Your task to perform on an android device: change keyboard looks Image 0: 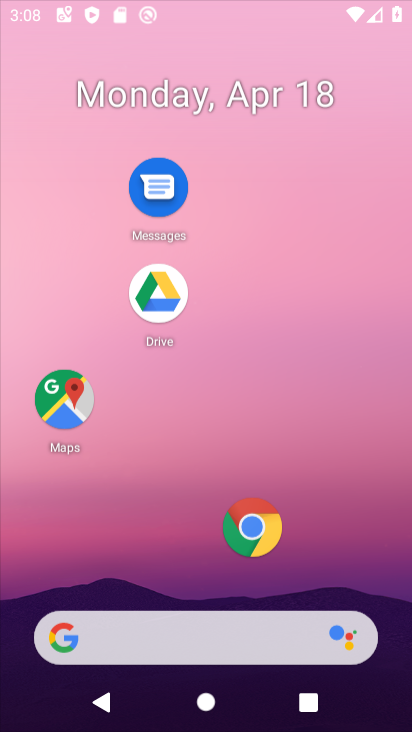
Step 0: click (232, 135)
Your task to perform on an android device: change keyboard looks Image 1: 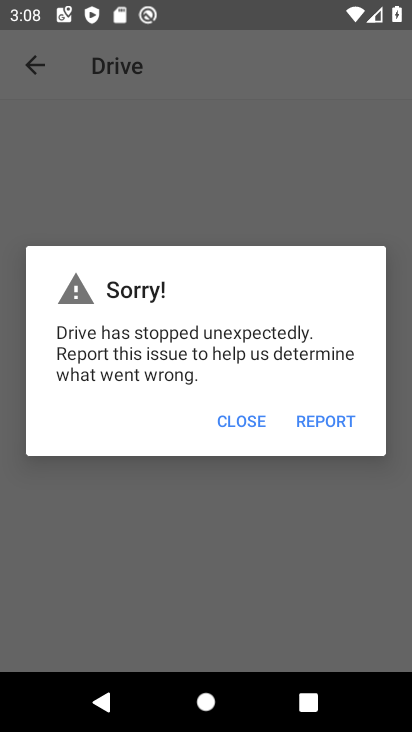
Step 1: press back button
Your task to perform on an android device: change keyboard looks Image 2: 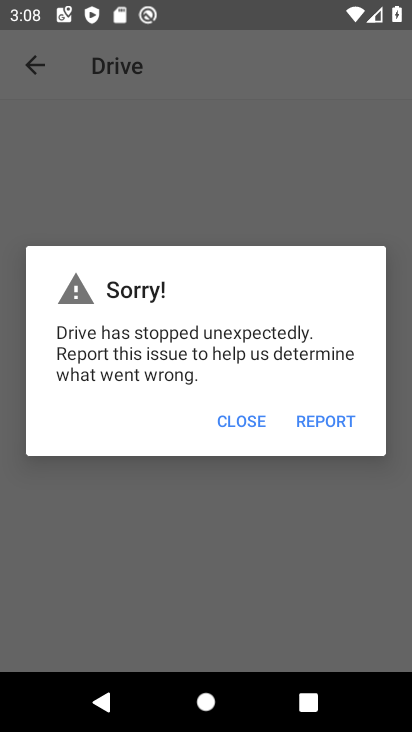
Step 2: press home button
Your task to perform on an android device: change keyboard looks Image 3: 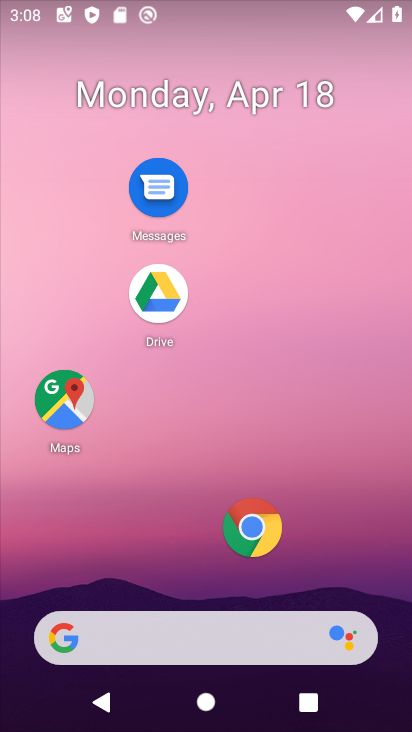
Step 3: drag from (161, 479) to (235, 130)
Your task to perform on an android device: change keyboard looks Image 4: 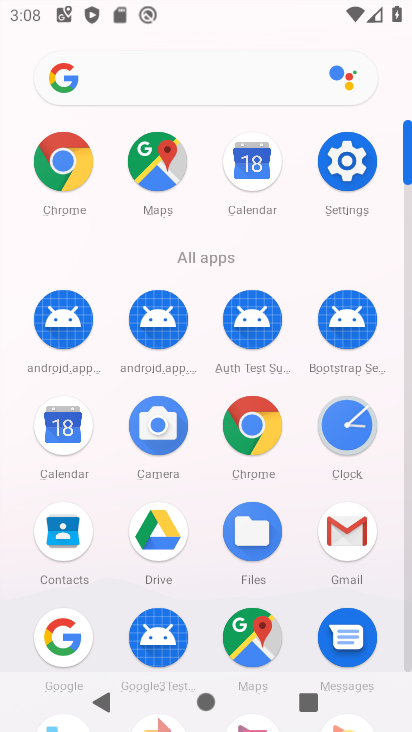
Step 4: click (348, 168)
Your task to perform on an android device: change keyboard looks Image 5: 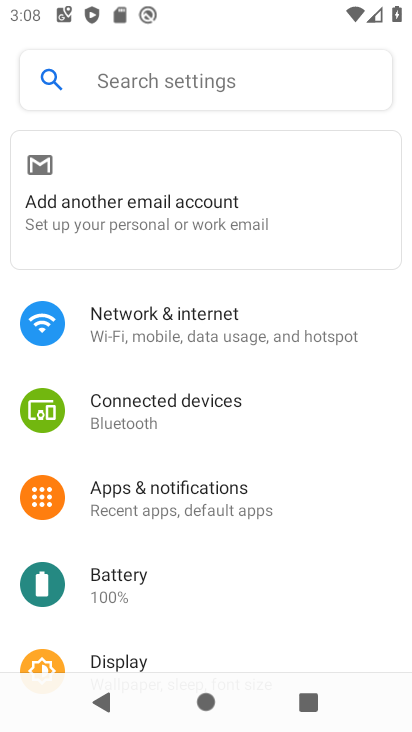
Step 5: drag from (164, 432) to (189, 313)
Your task to perform on an android device: change keyboard looks Image 6: 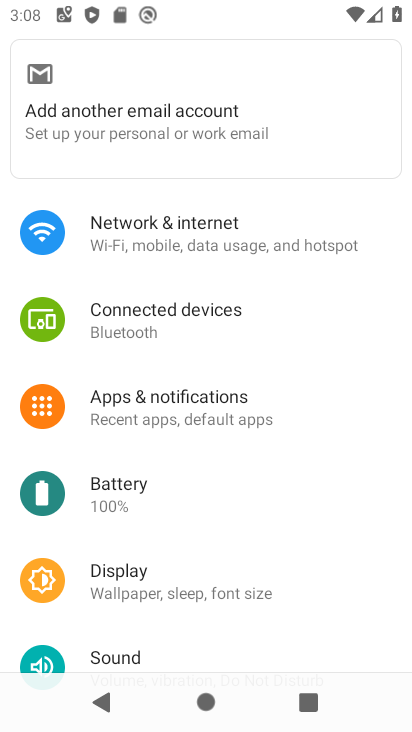
Step 6: drag from (200, 448) to (205, 359)
Your task to perform on an android device: change keyboard looks Image 7: 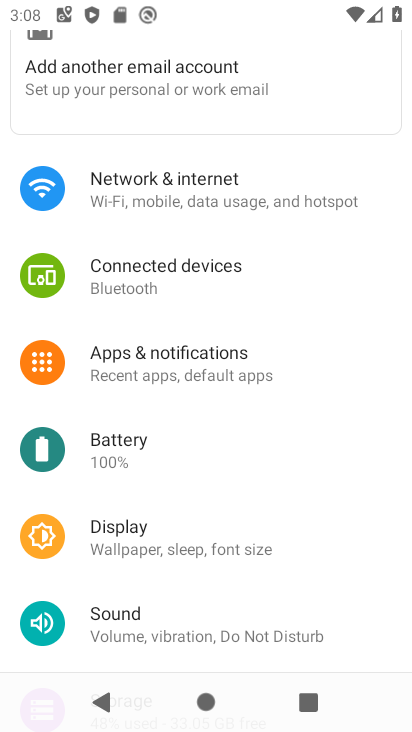
Step 7: drag from (180, 497) to (205, 384)
Your task to perform on an android device: change keyboard looks Image 8: 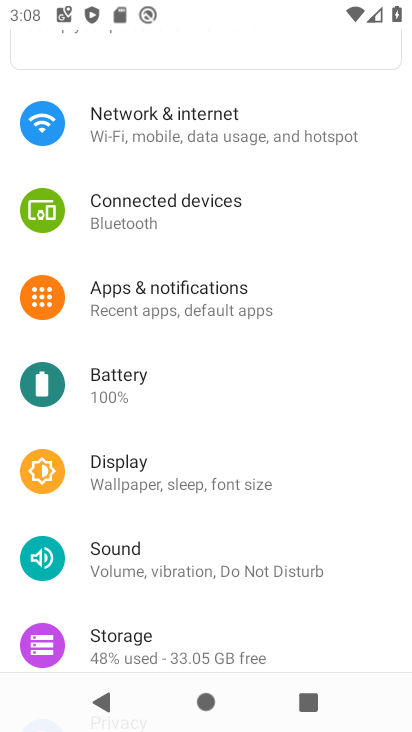
Step 8: drag from (187, 544) to (213, 398)
Your task to perform on an android device: change keyboard looks Image 9: 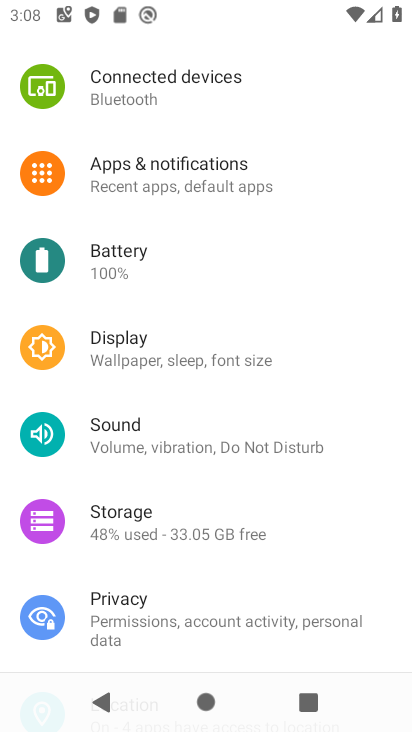
Step 9: drag from (165, 500) to (199, 374)
Your task to perform on an android device: change keyboard looks Image 10: 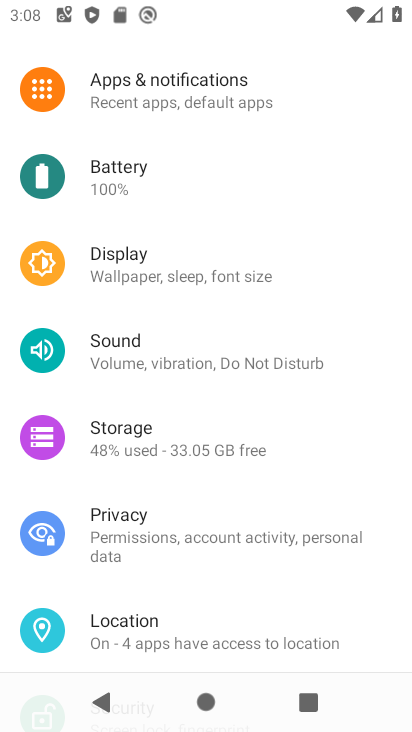
Step 10: drag from (165, 515) to (192, 407)
Your task to perform on an android device: change keyboard looks Image 11: 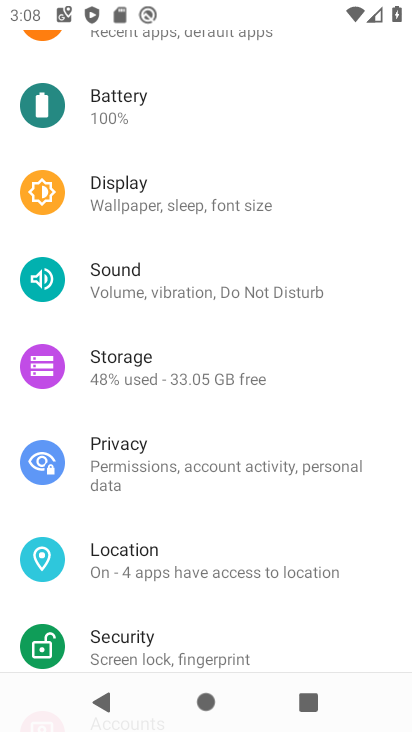
Step 11: drag from (175, 500) to (195, 412)
Your task to perform on an android device: change keyboard looks Image 12: 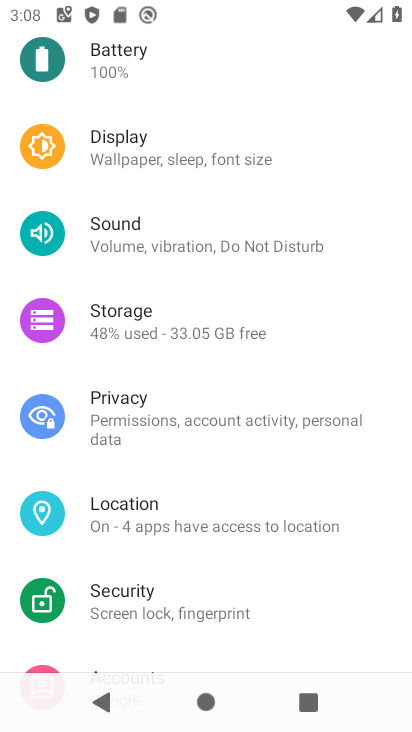
Step 12: drag from (191, 491) to (204, 414)
Your task to perform on an android device: change keyboard looks Image 13: 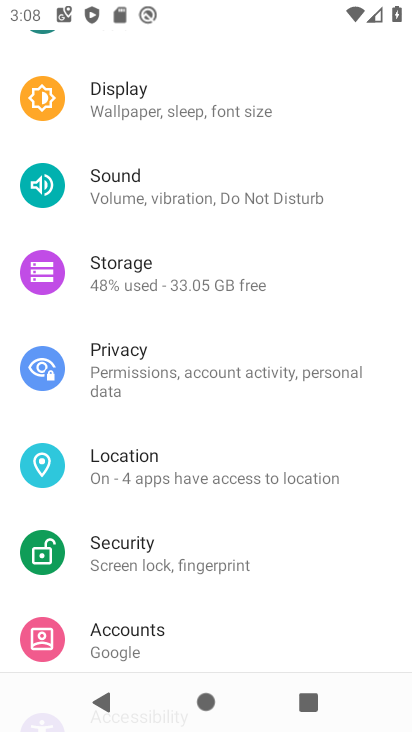
Step 13: drag from (179, 513) to (212, 412)
Your task to perform on an android device: change keyboard looks Image 14: 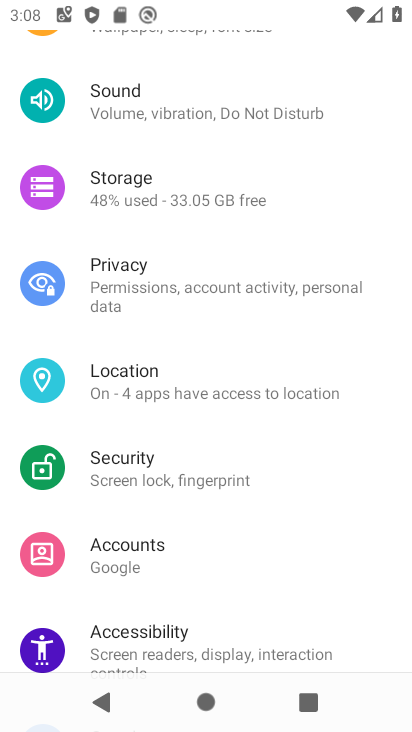
Step 14: drag from (181, 544) to (201, 435)
Your task to perform on an android device: change keyboard looks Image 15: 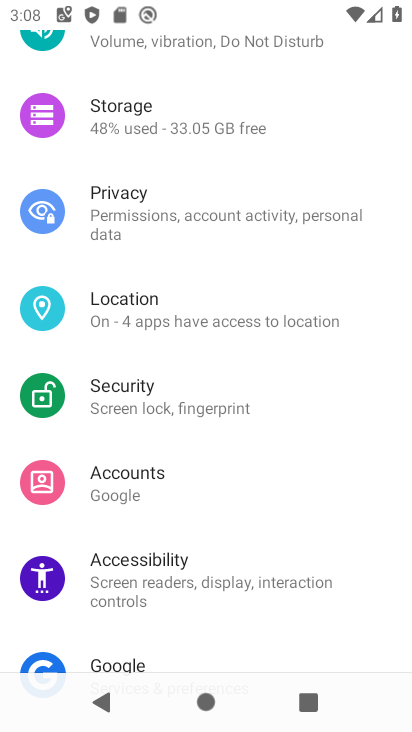
Step 15: drag from (164, 528) to (189, 404)
Your task to perform on an android device: change keyboard looks Image 16: 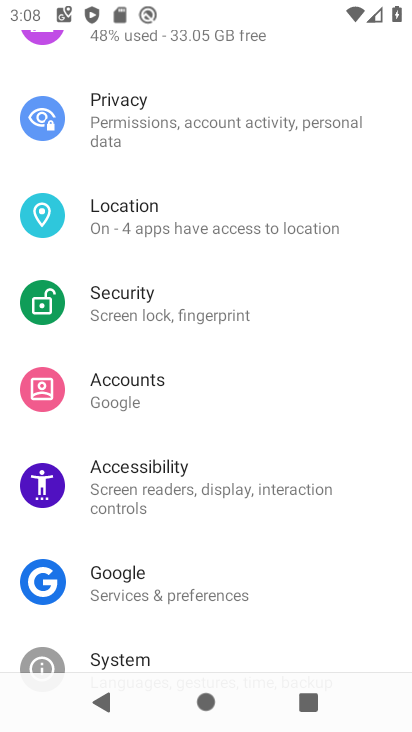
Step 16: drag from (159, 534) to (202, 430)
Your task to perform on an android device: change keyboard looks Image 17: 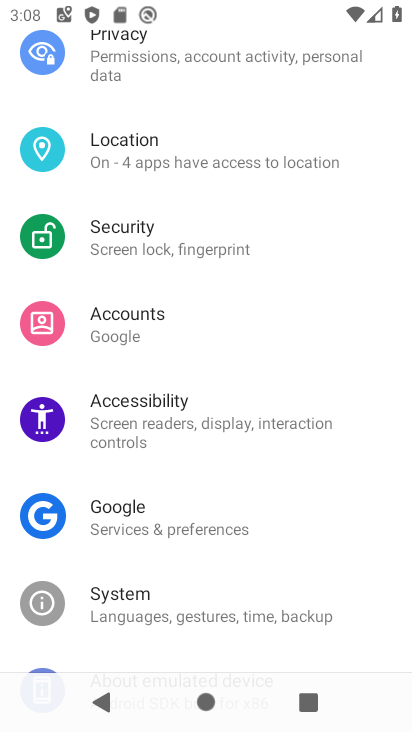
Step 17: drag from (159, 572) to (191, 477)
Your task to perform on an android device: change keyboard looks Image 18: 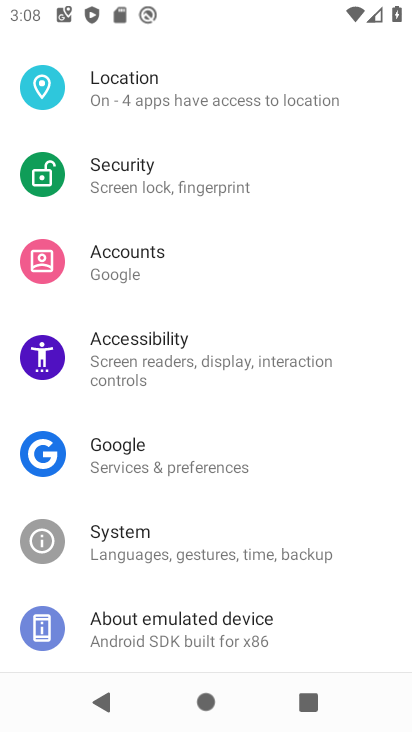
Step 18: drag from (164, 600) to (221, 469)
Your task to perform on an android device: change keyboard looks Image 19: 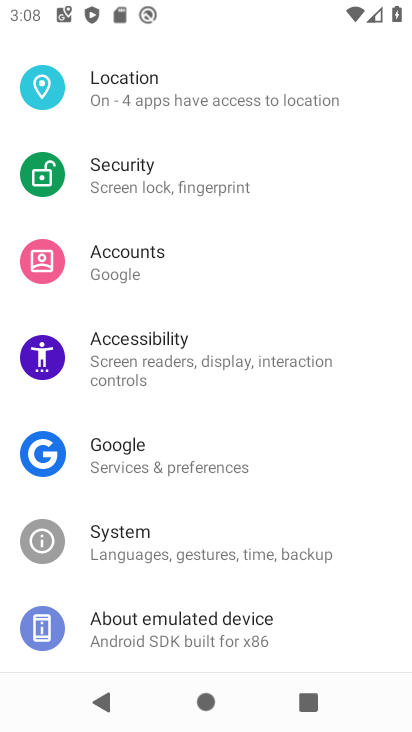
Step 19: click (148, 537)
Your task to perform on an android device: change keyboard looks Image 20: 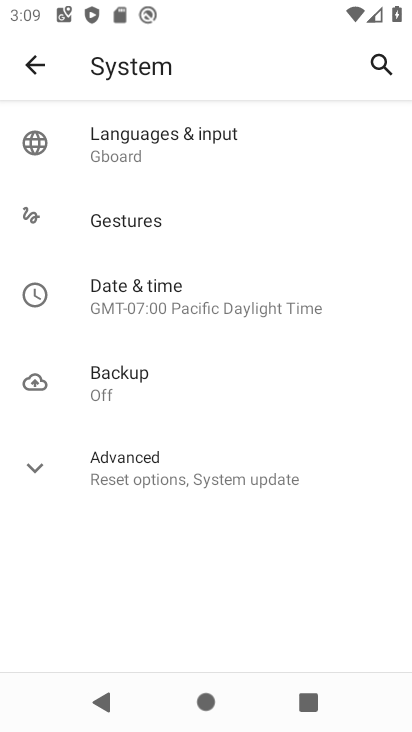
Step 20: click (150, 144)
Your task to perform on an android device: change keyboard looks Image 21: 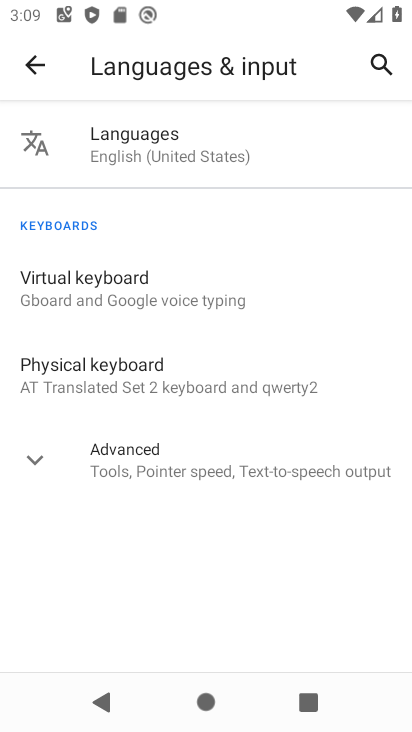
Step 21: click (119, 303)
Your task to perform on an android device: change keyboard looks Image 22: 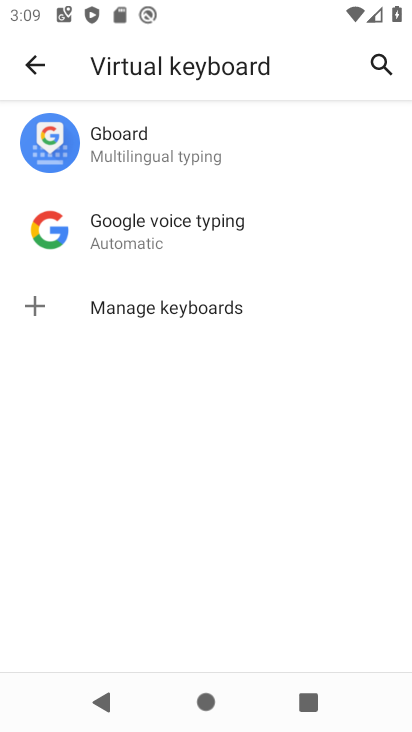
Step 22: click (131, 151)
Your task to perform on an android device: change keyboard looks Image 23: 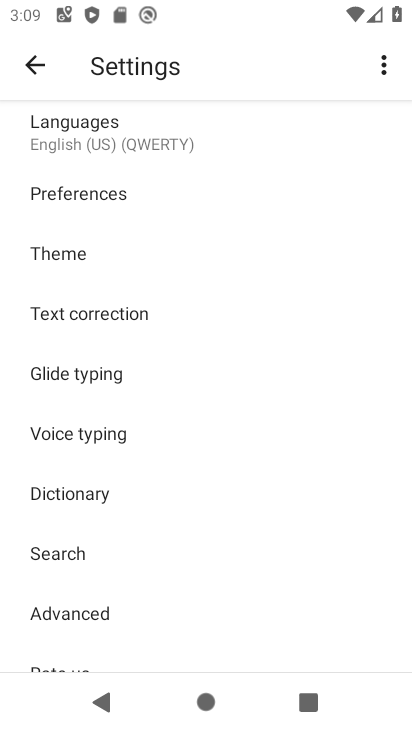
Step 23: click (78, 258)
Your task to perform on an android device: change keyboard looks Image 24: 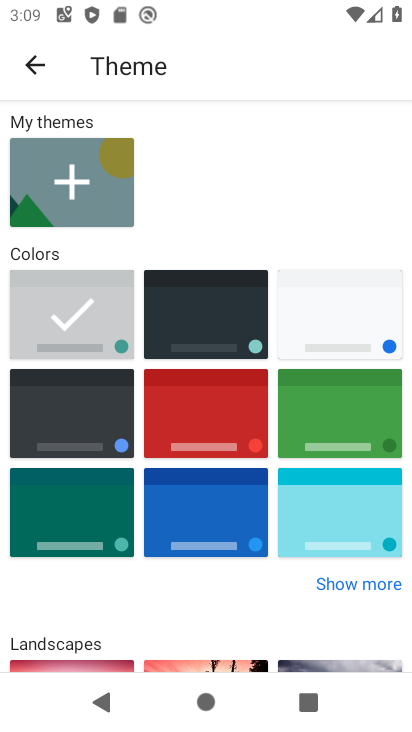
Step 24: click (196, 306)
Your task to perform on an android device: change keyboard looks Image 25: 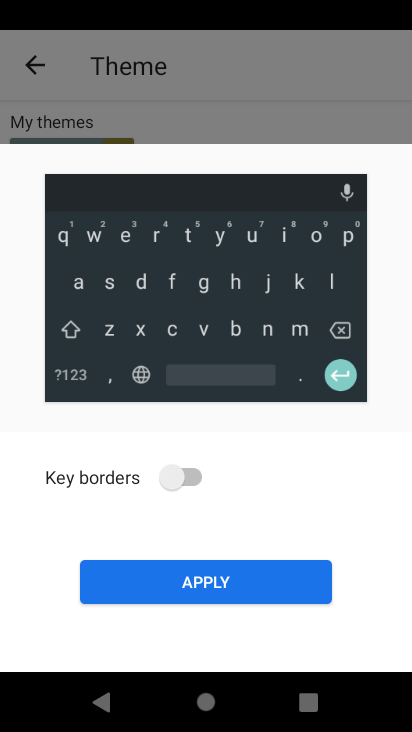
Step 25: click (183, 480)
Your task to perform on an android device: change keyboard looks Image 26: 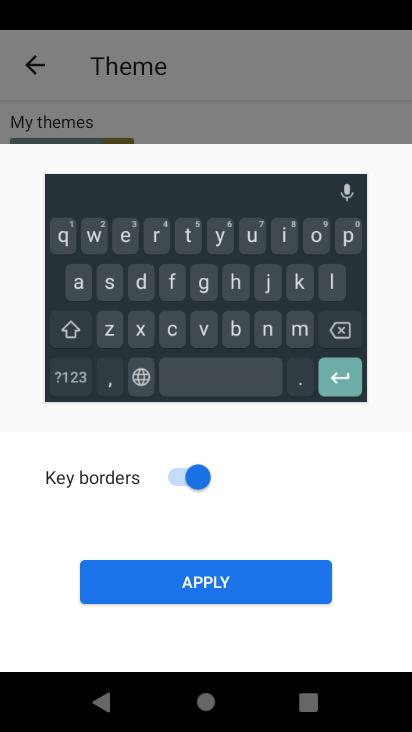
Step 26: click (241, 588)
Your task to perform on an android device: change keyboard looks Image 27: 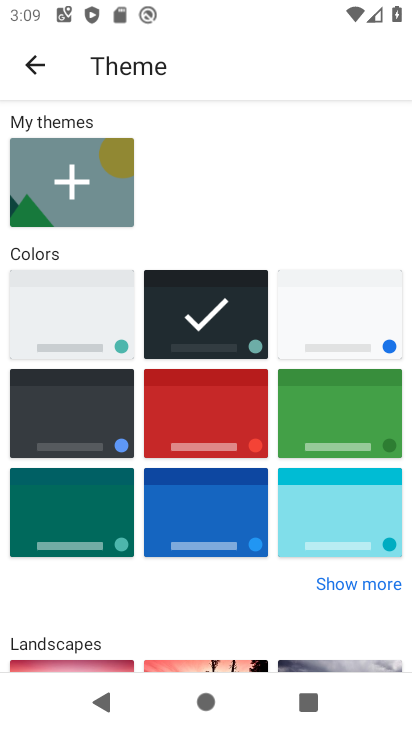
Step 27: task complete